Your task to perform on an android device: Play the last video I watched on Youtube Image 0: 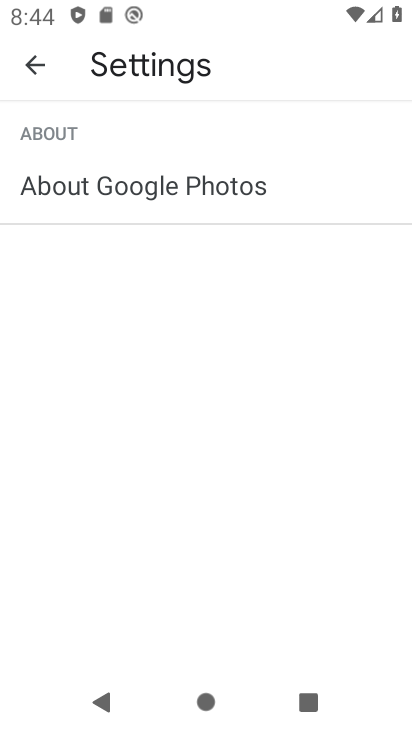
Step 0: press back button
Your task to perform on an android device: Play the last video I watched on Youtube Image 1: 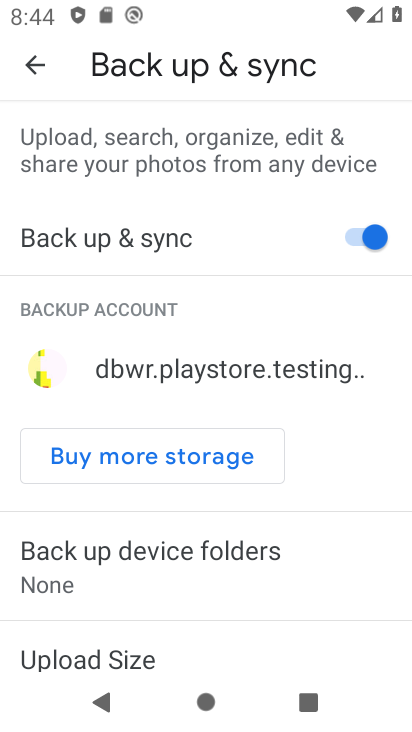
Step 1: press back button
Your task to perform on an android device: Play the last video I watched on Youtube Image 2: 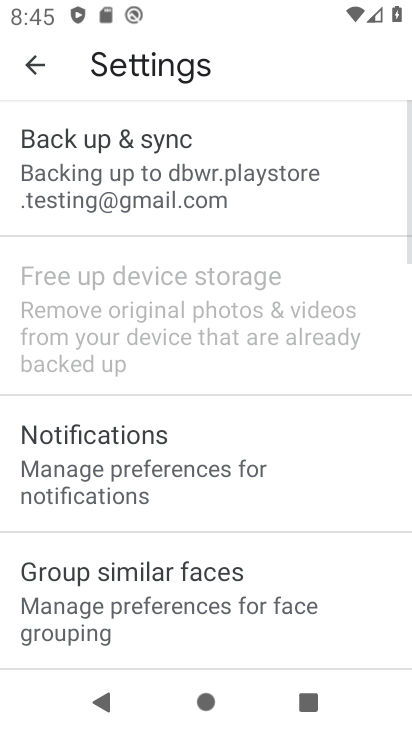
Step 2: press back button
Your task to perform on an android device: Play the last video I watched on Youtube Image 3: 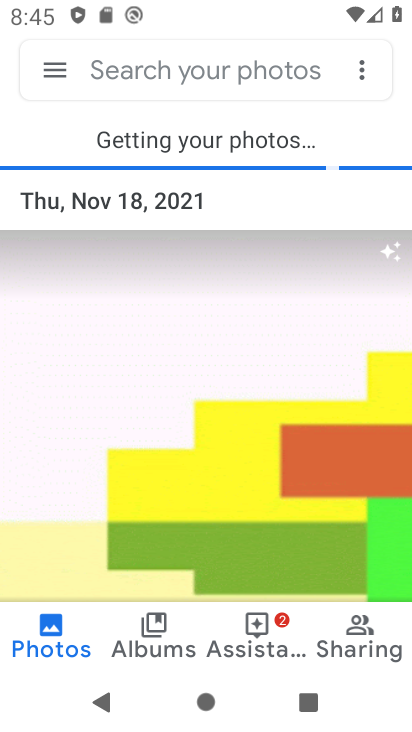
Step 3: press home button
Your task to perform on an android device: Play the last video I watched on Youtube Image 4: 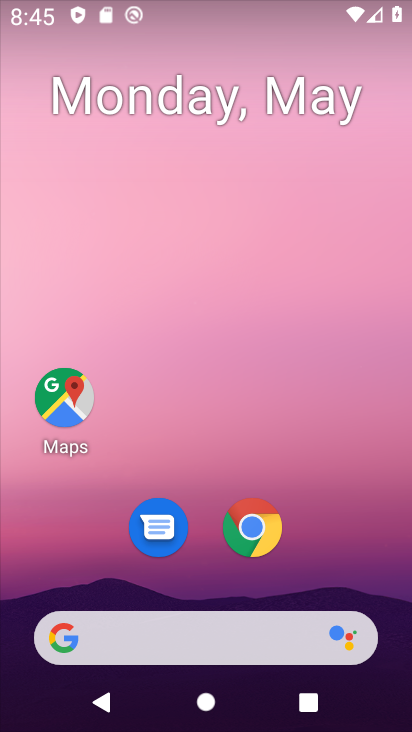
Step 4: drag from (342, 505) to (295, 2)
Your task to perform on an android device: Play the last video I watched on Youtube Image 5: 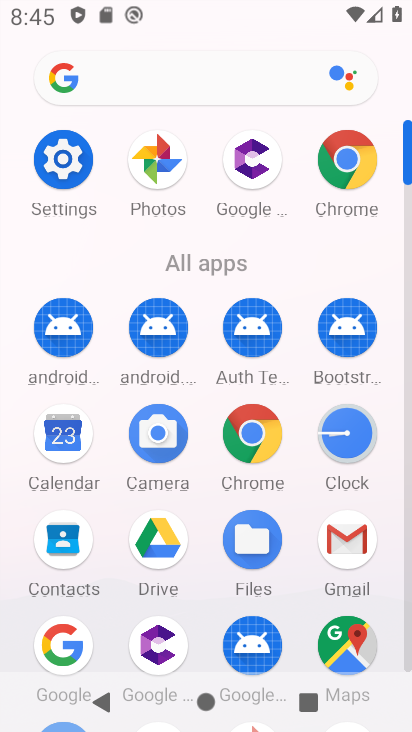
Step 5: drag from (6, 553) to (18, 217)
Your task to perform on an android device: Play the last video I watched on Youtube Image 6: 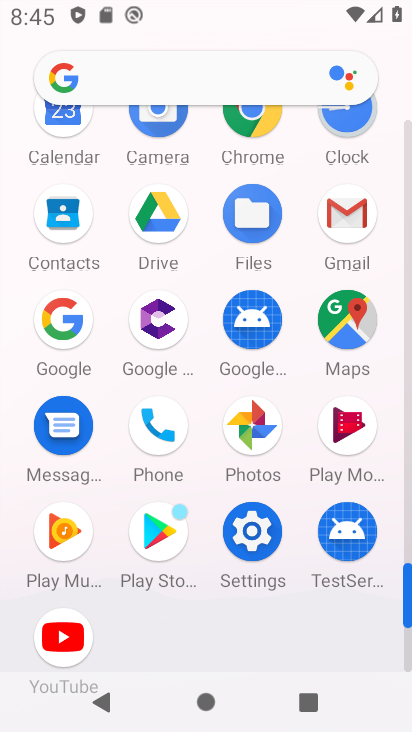
Step 6: click (63, 636)
Your task to perform on an android device: Play the last video I watched on Youtube Image 7: 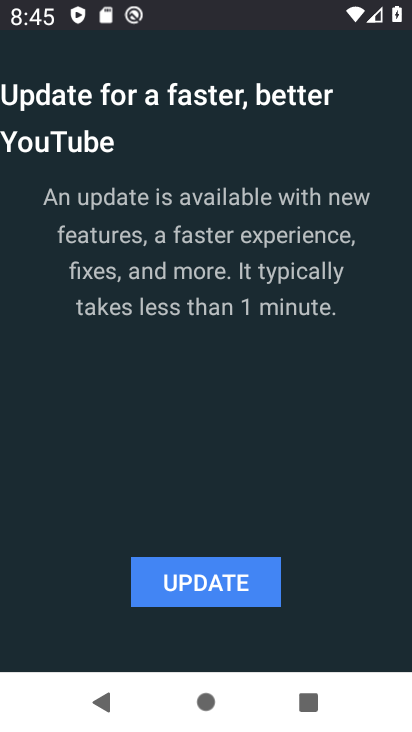
Step 7: click (233, 588)
Your task to perform on an android device: Play the last video I watched on Youtube Image 8: 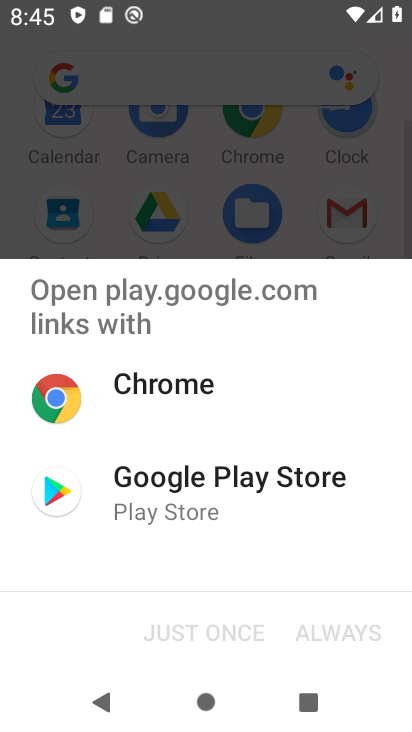
Step 8: click (175, 489)
Your task to perform on an android device: Play the last video I watched on Youtube Image 9: 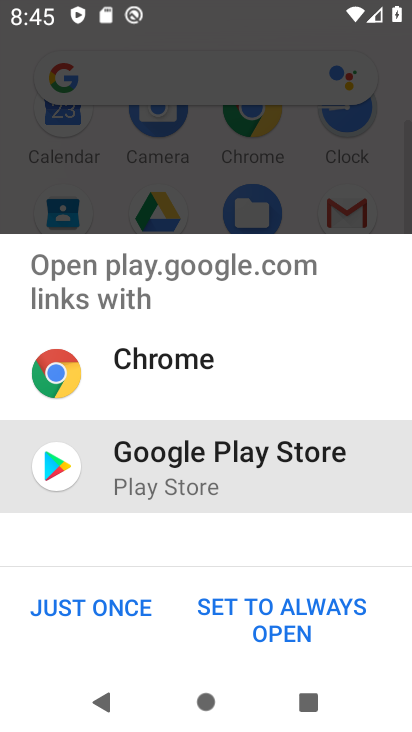
Step 9: click (93, 608)
Your task to perform on an android device: Play the last video I watched on Youtube Image 10: 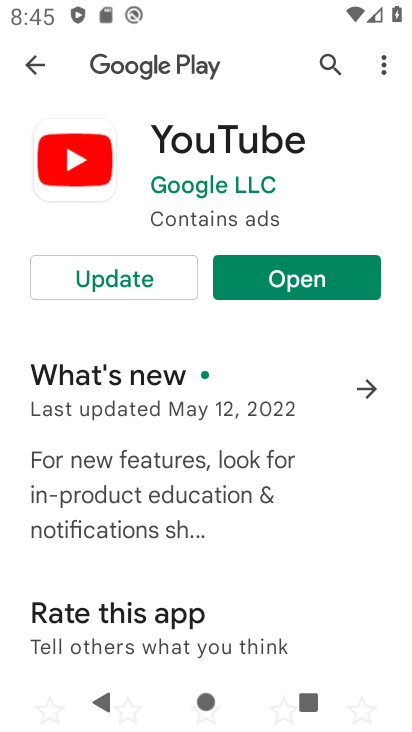
Step 10: click (124, 267)
Your task to perform on an android device: Play the last video I watched on Youtube Image 11: 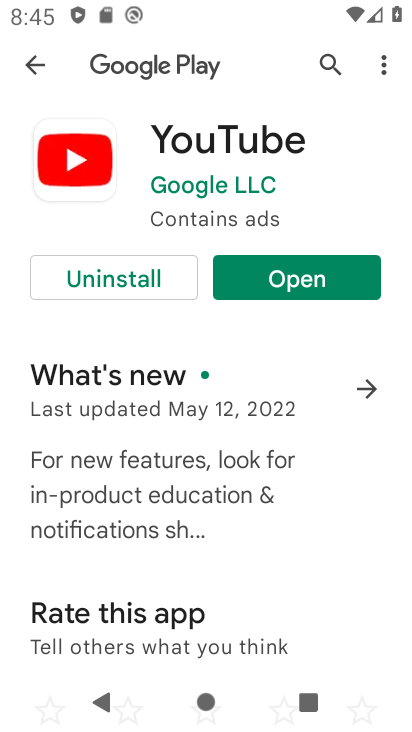
Step 11: click (332, 272)
Your task to perform on an android device: Play the last video I watched on Youtube Image 12: 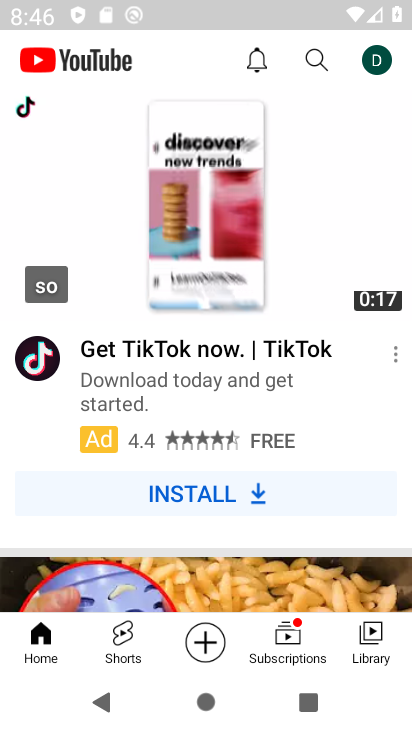
Step 12: click (382, 643)
Your task to perform on an android device: Play the last video I watched on Youtube Image 13: 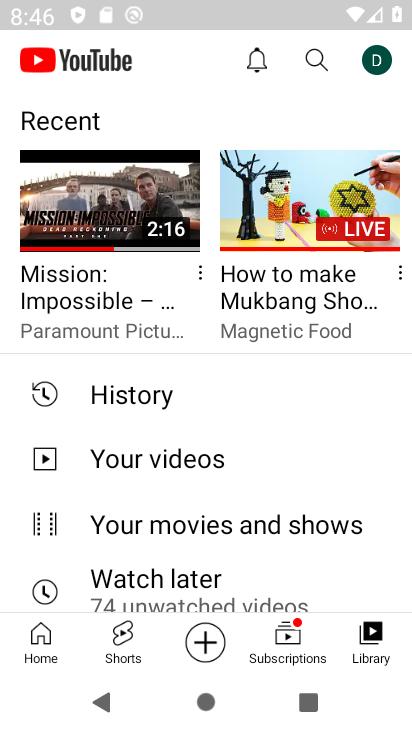
Step 13: click (130, 205)
Your task to perform on an android device: Play the last video I watched on Youtube Image 14: 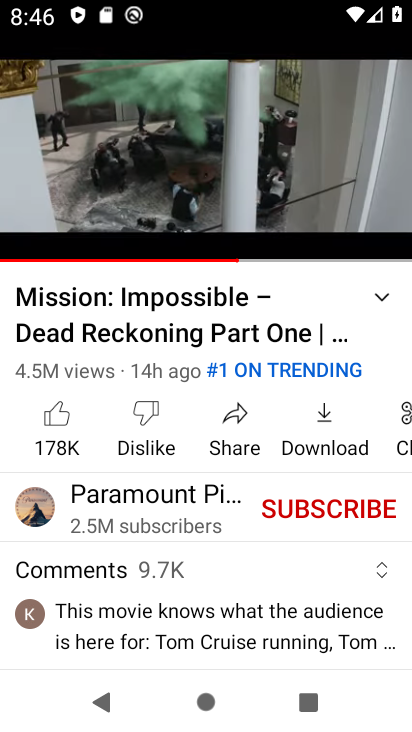
Step 14: task complete